Your task to perform on an android device: Open the web browser Image 0: 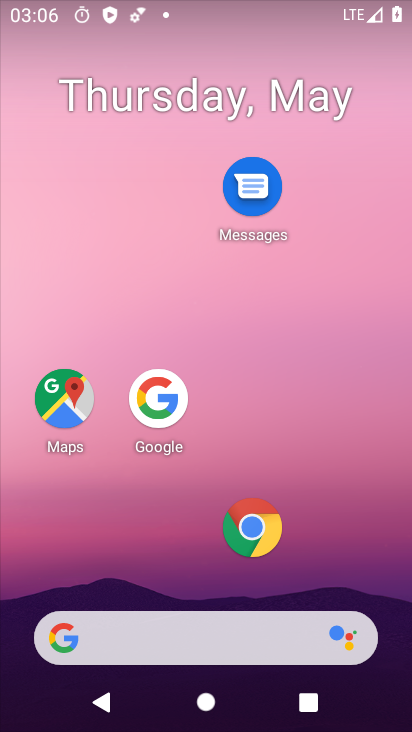
Step 0: drag from (209, 584) to (248, 135)
Your task to perform on an android device: Open the web browser Image 1: 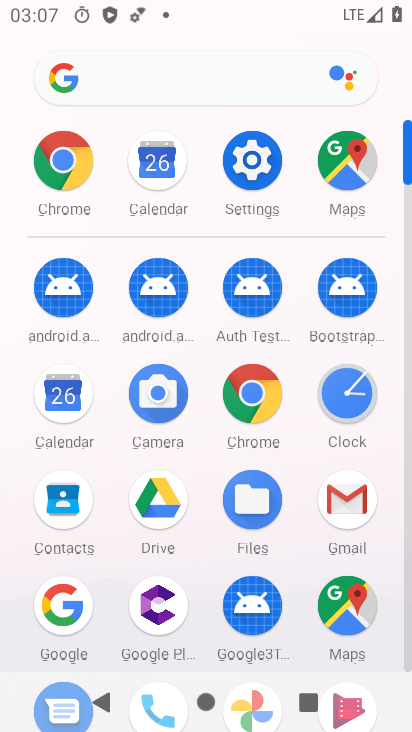
Step 1: click (246, 395)
Your task to perform on an android device: Open the web browser Image 2: 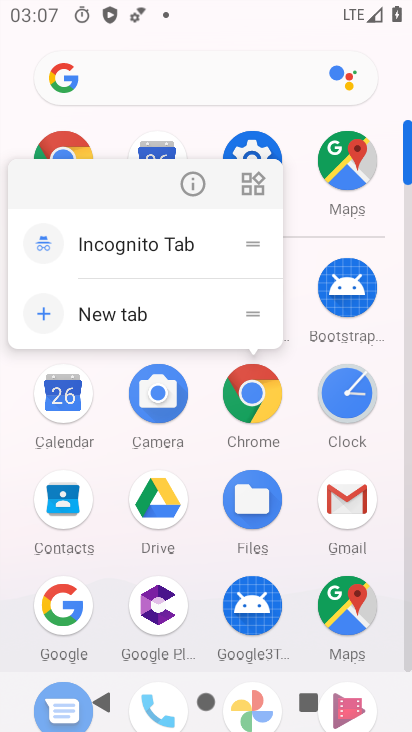
Step 2: click (197, 183)
Your task to perform on an android device: Open the web browser Image 3: 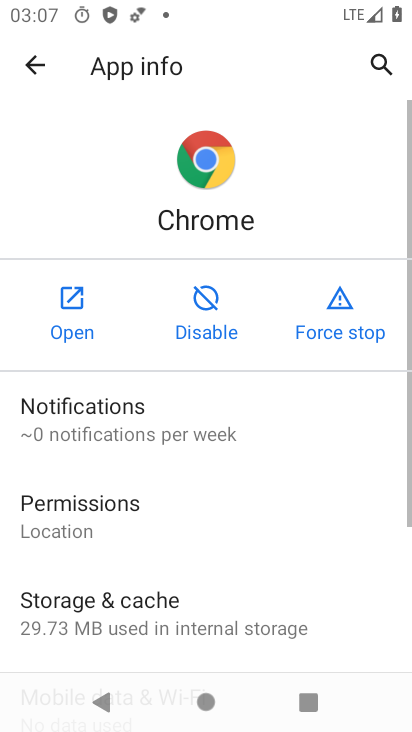
Step 3: click (74, 302)
Your task to perform on an android device: Open the web browser Image 4: 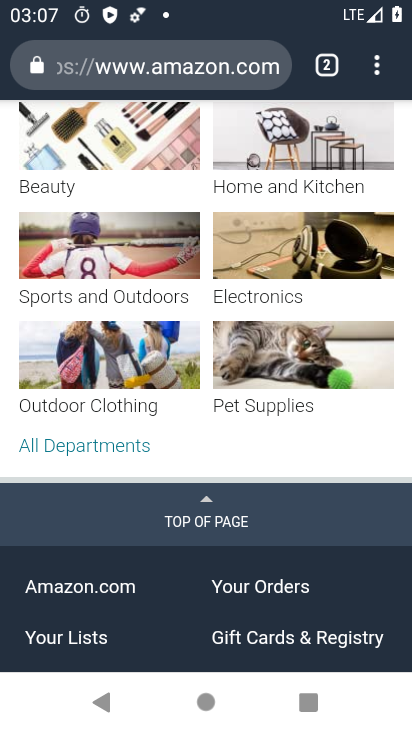
Step 4: task complete